Your task to perform on an android device: Show me popular games on the Play Store Image 0: 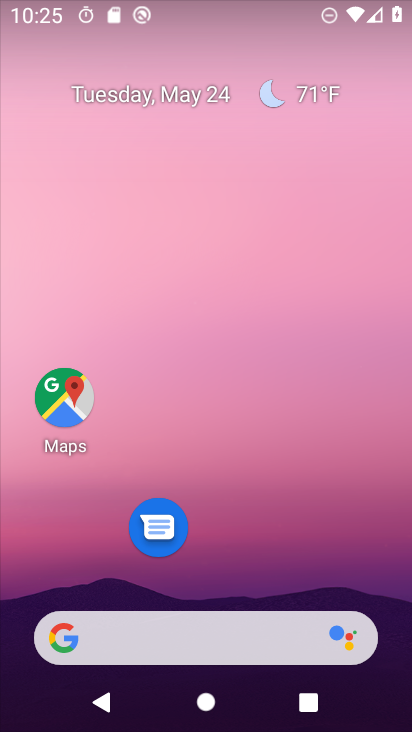
Step 0: drag from (268, 542) to (291, 99)
Your task to perform on an android device: Show me popular games on the Play Store Image 1: 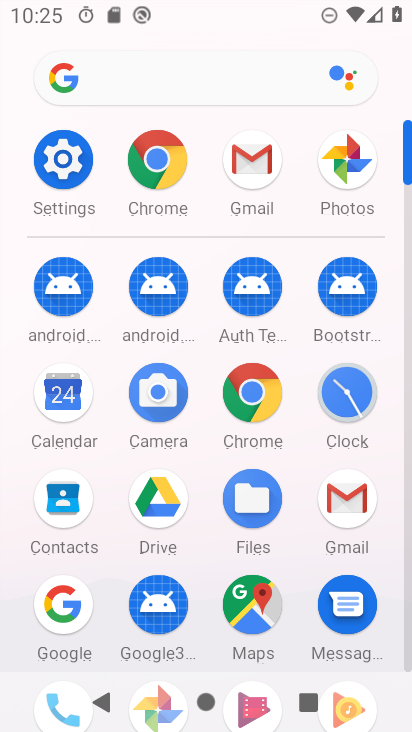
Step 1: drag from (106, 533) to (143, 264)
Your task to perform on an android device: Show me popular games on the Play Store Image 2: 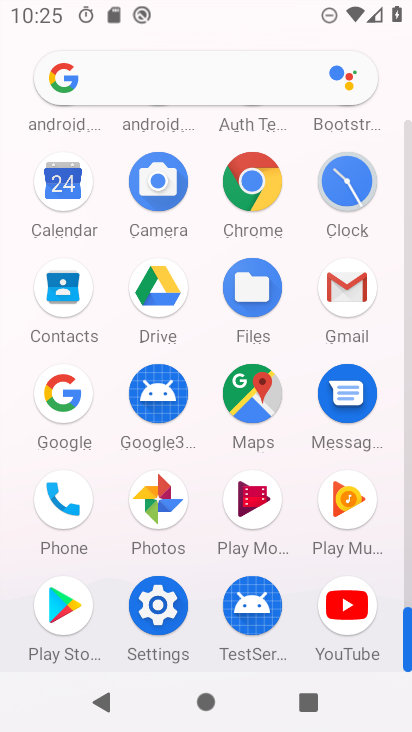
Step 2: click (74, 592)
Your task to perform on an android device: Show me popular games on the Play Store Image 3: 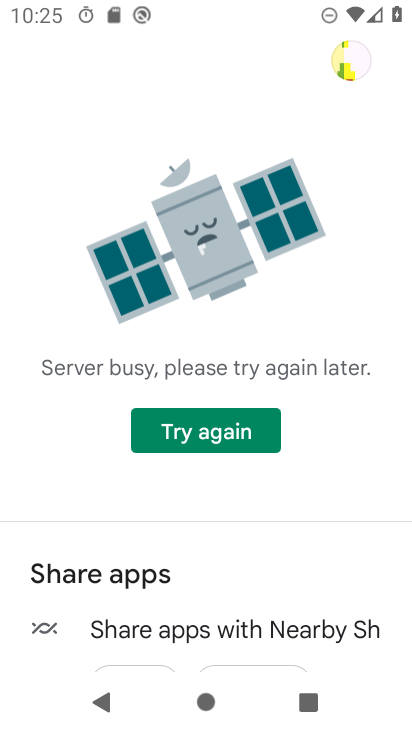
Step 3: task complete